Your task to perform on an android device: Go to settings Image 0: 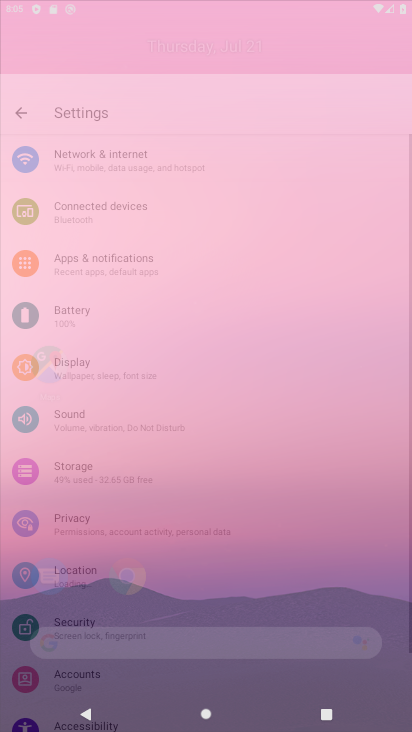
Step 0: click (99, 665)
Your task to perform on an android device: Go to settings Image 1: 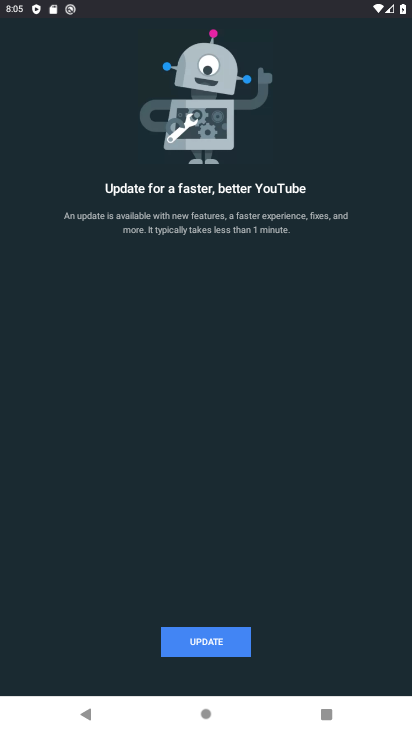
Step 1: press home button
Your task to perform on an android device: Go to settings Image 2: 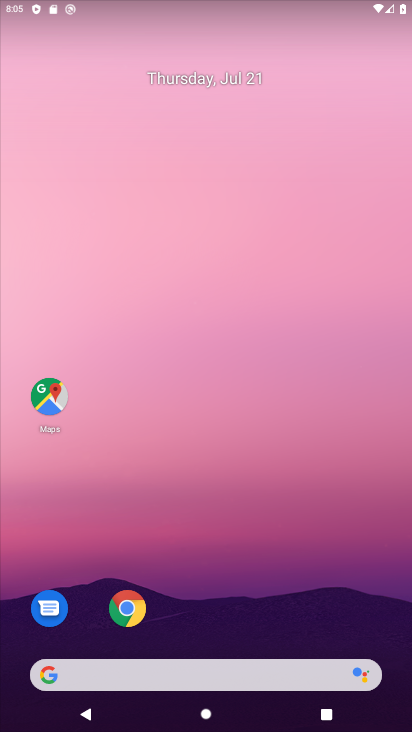
Step 2: drag from (20, 690) to (270, 36)
Your task to perform on an android device: Go to settings Image 3: 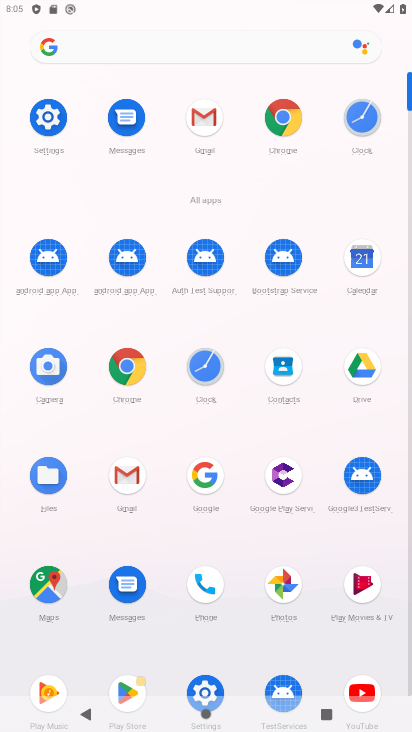
Step 3: click (192, 681)
Your task to perform on an android device: Go to settings Image 4: 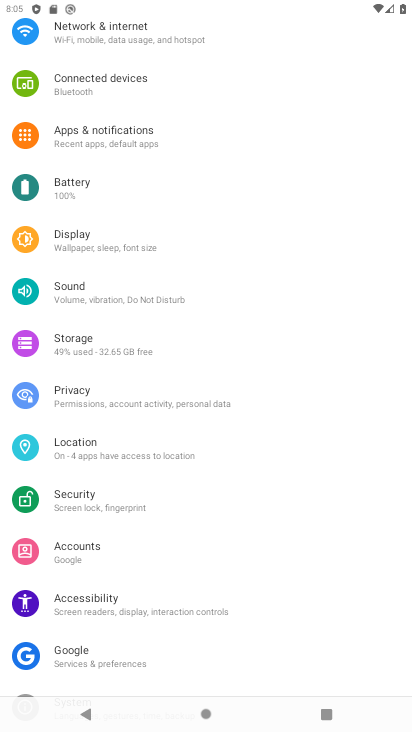
Step 4: task complete